Your task to perform on an android device: Do I have any events tomorrow? Image 0: 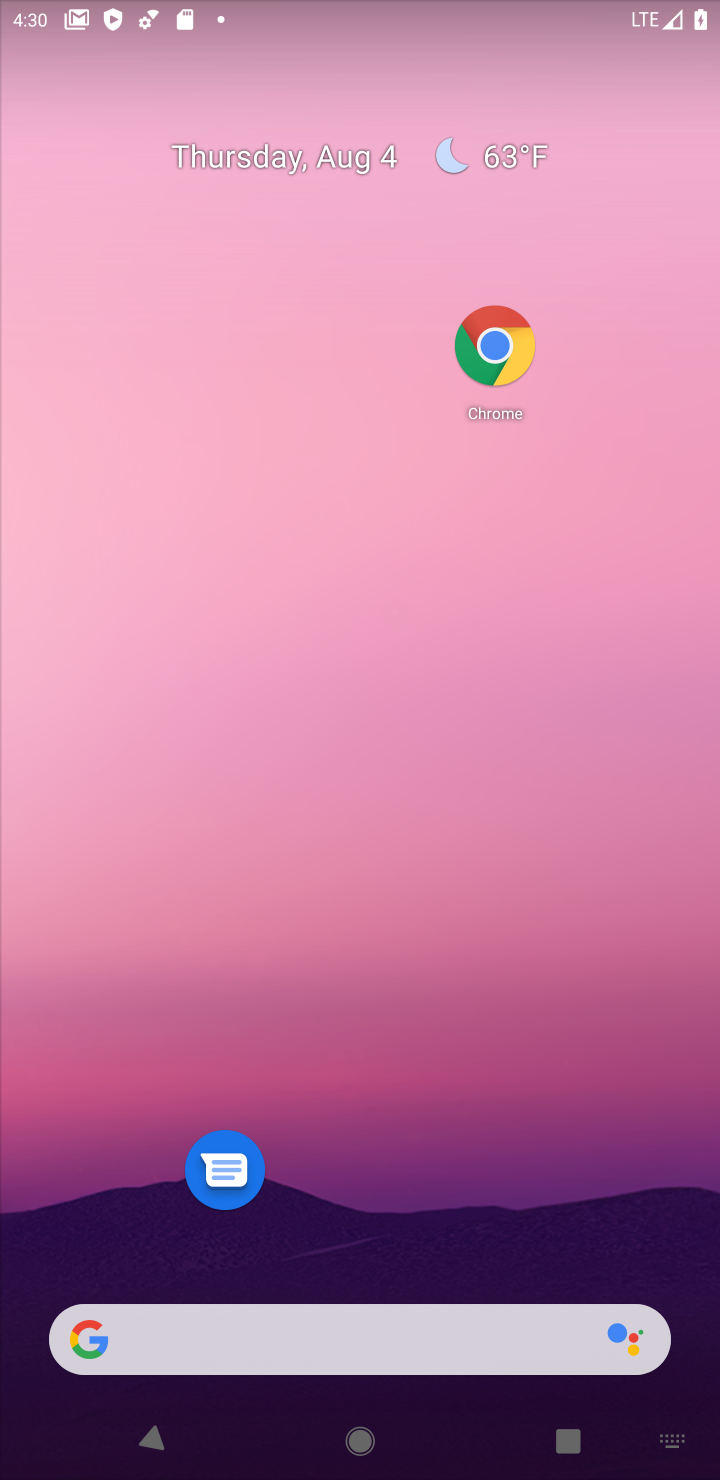
Step 0: drag from (506, 1252) to (338, 0)
Your task to perform on an android device: Do I have any events tomorrow? Image 1: 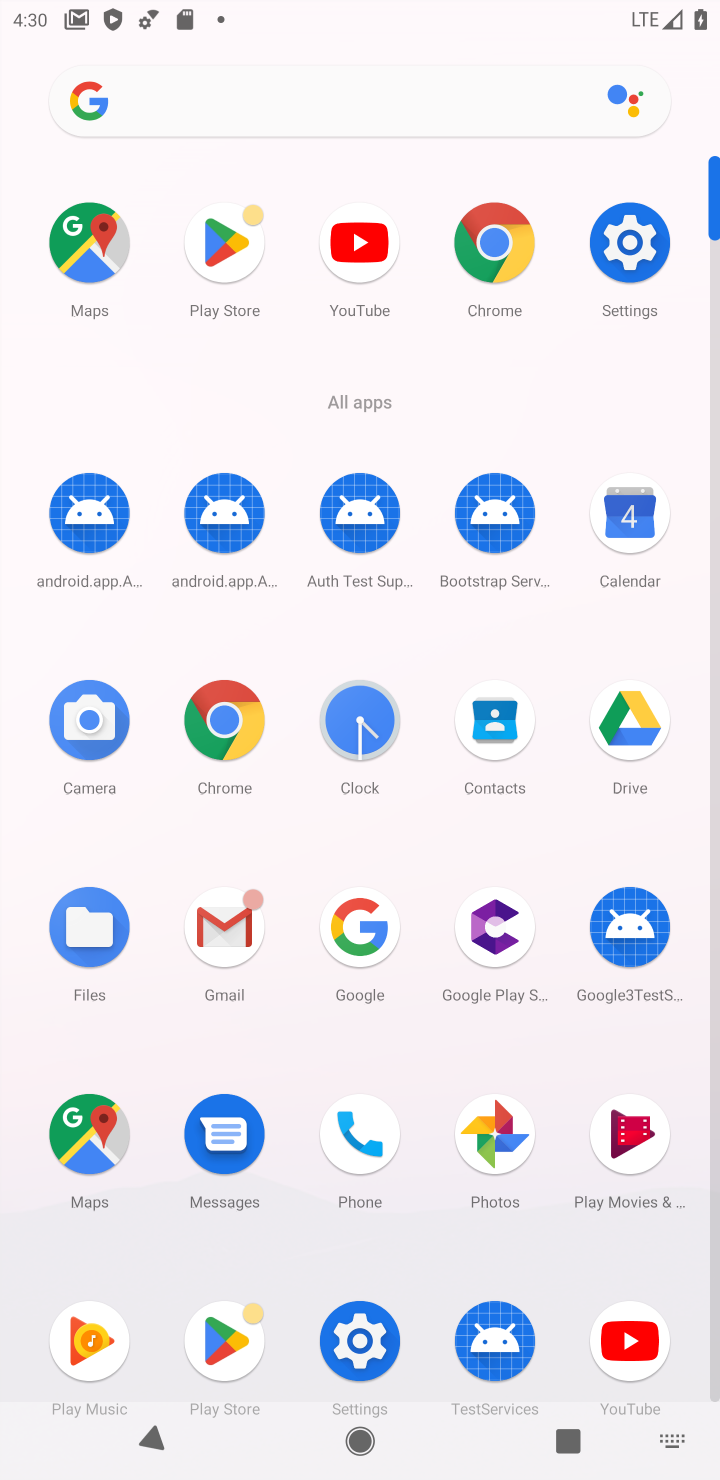
Step 1: click (636, 519)
Your task to perform on an android device: Do I have any events tomorrow? Image 2: 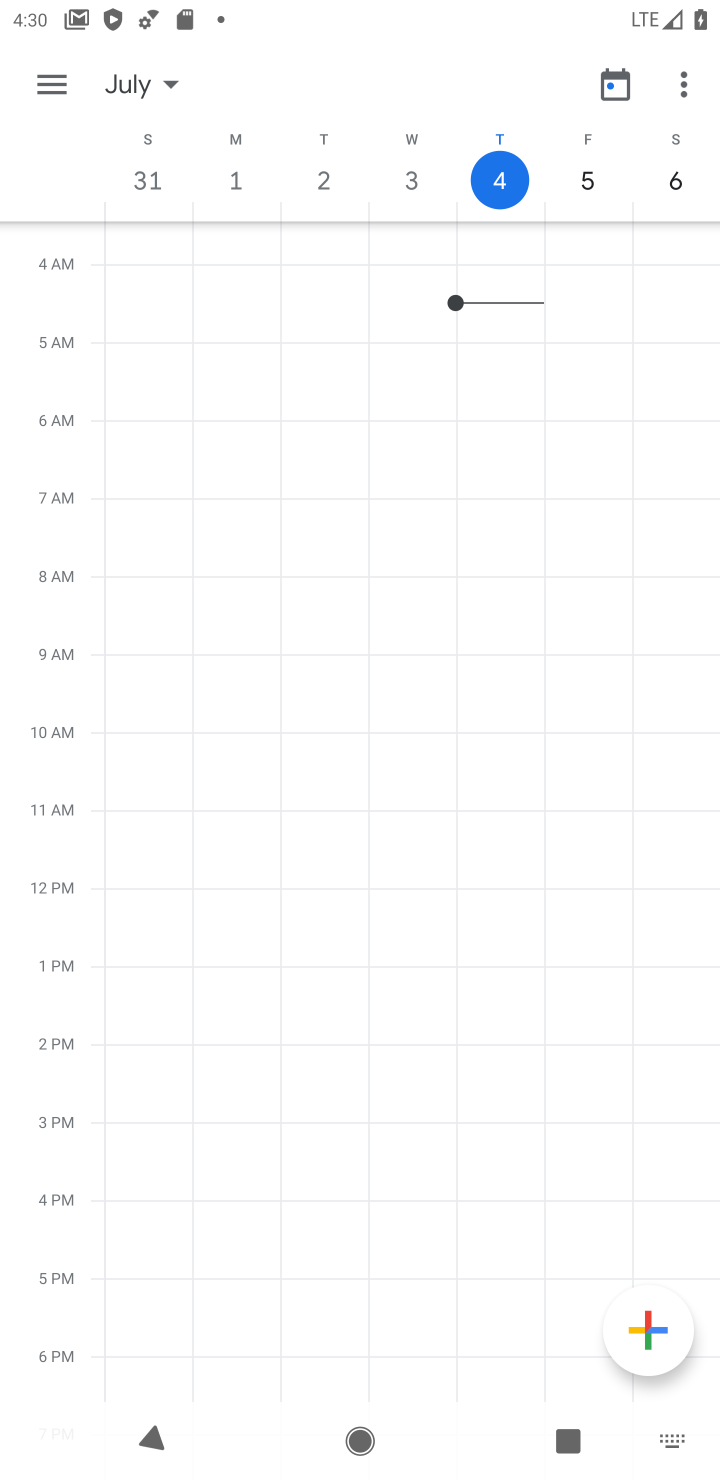
Step 2: click (46, 90)
Your task to perform on an android device: Do I have any events tomorrow? Image 3: 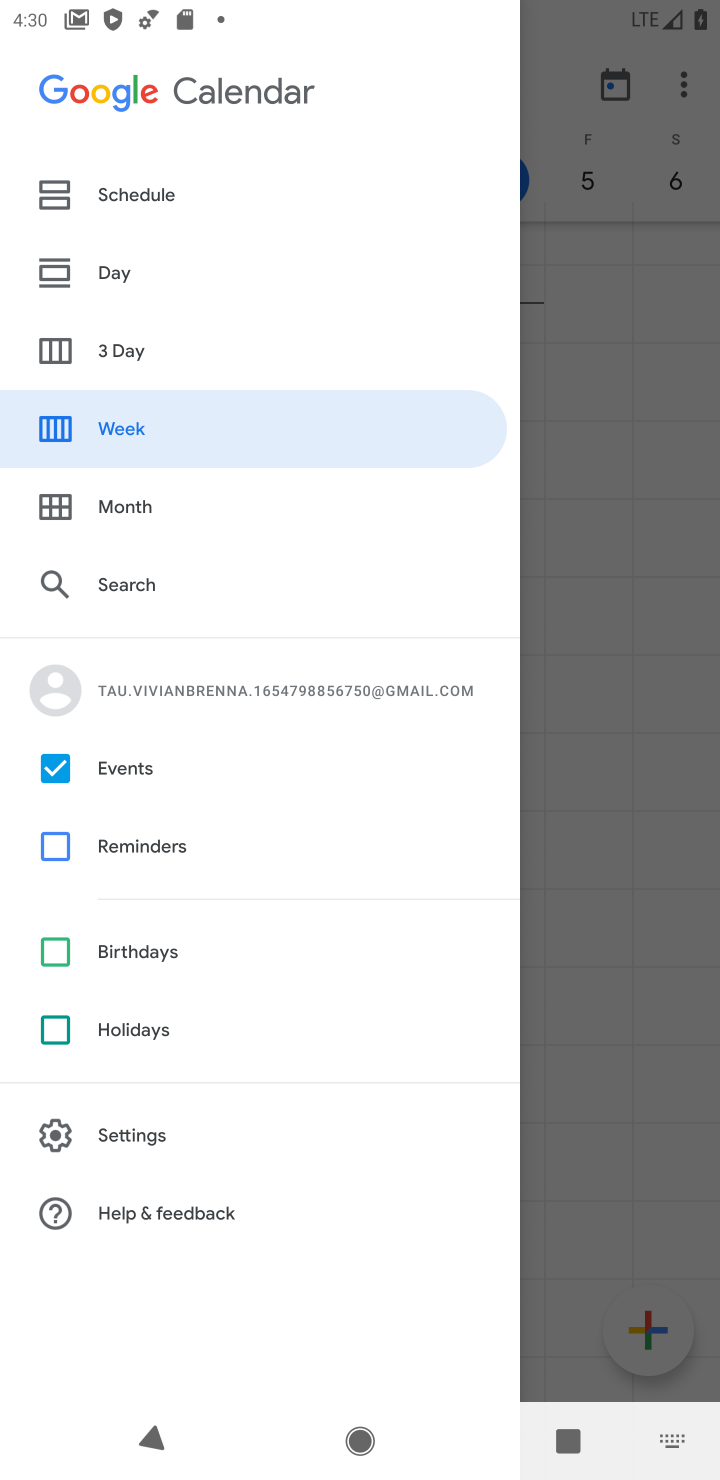
Step 3: click (145, 261)
Your task to perform on an android device: Do I have any events tomorrow? Image 4: 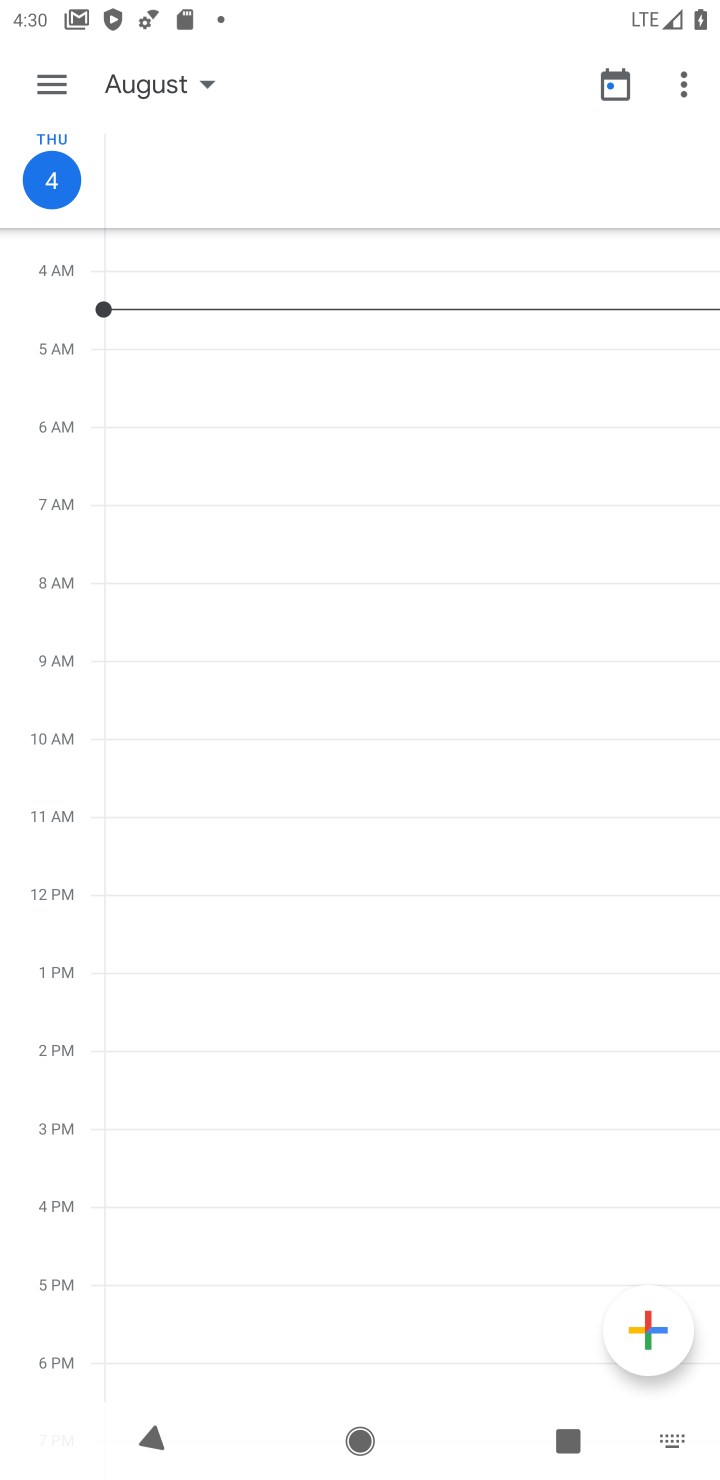
Step 4: task complete